Your task to perform on an android device: delete the emails in spam in the gmail app Image 0: 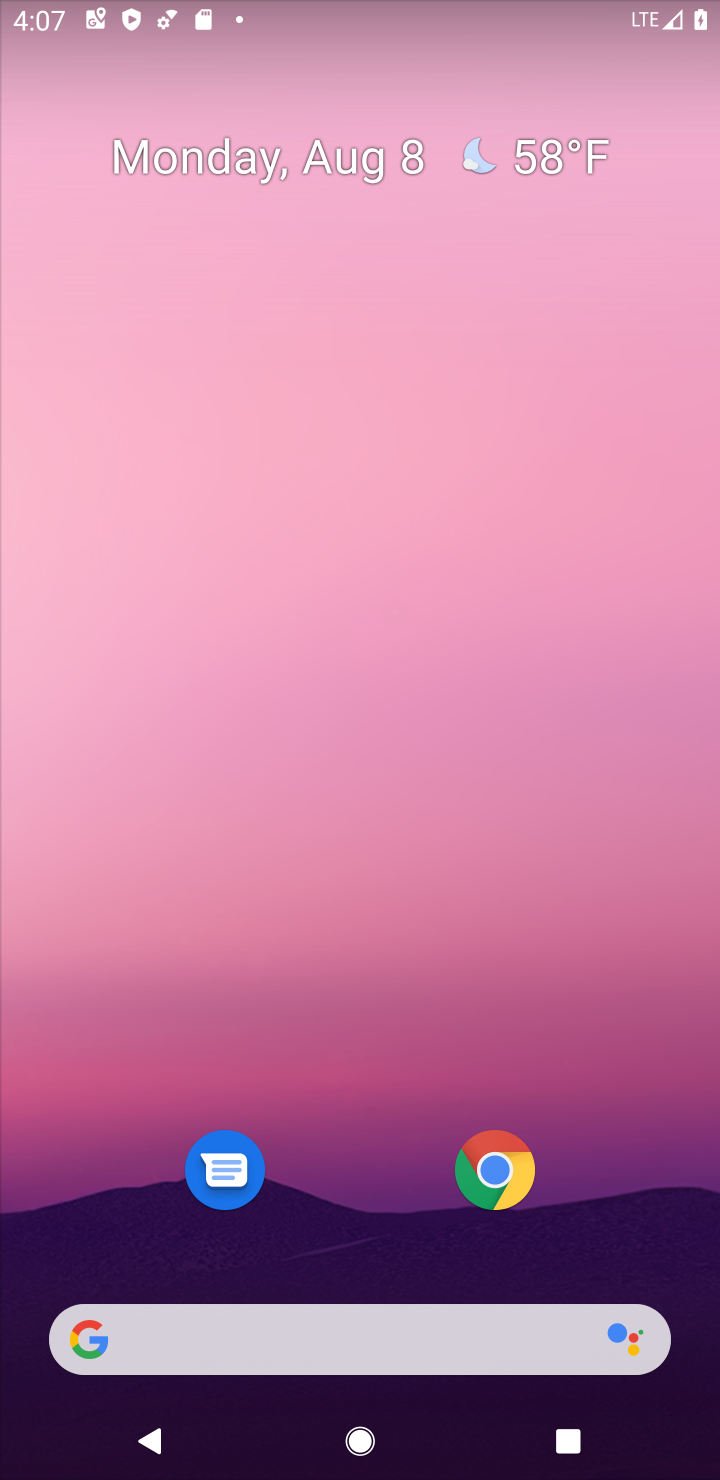
Step 0: drag from (256, 522) to (236, 222)
Your task to perform on an android device: delete the emails in spam in the gmail app Image 1: 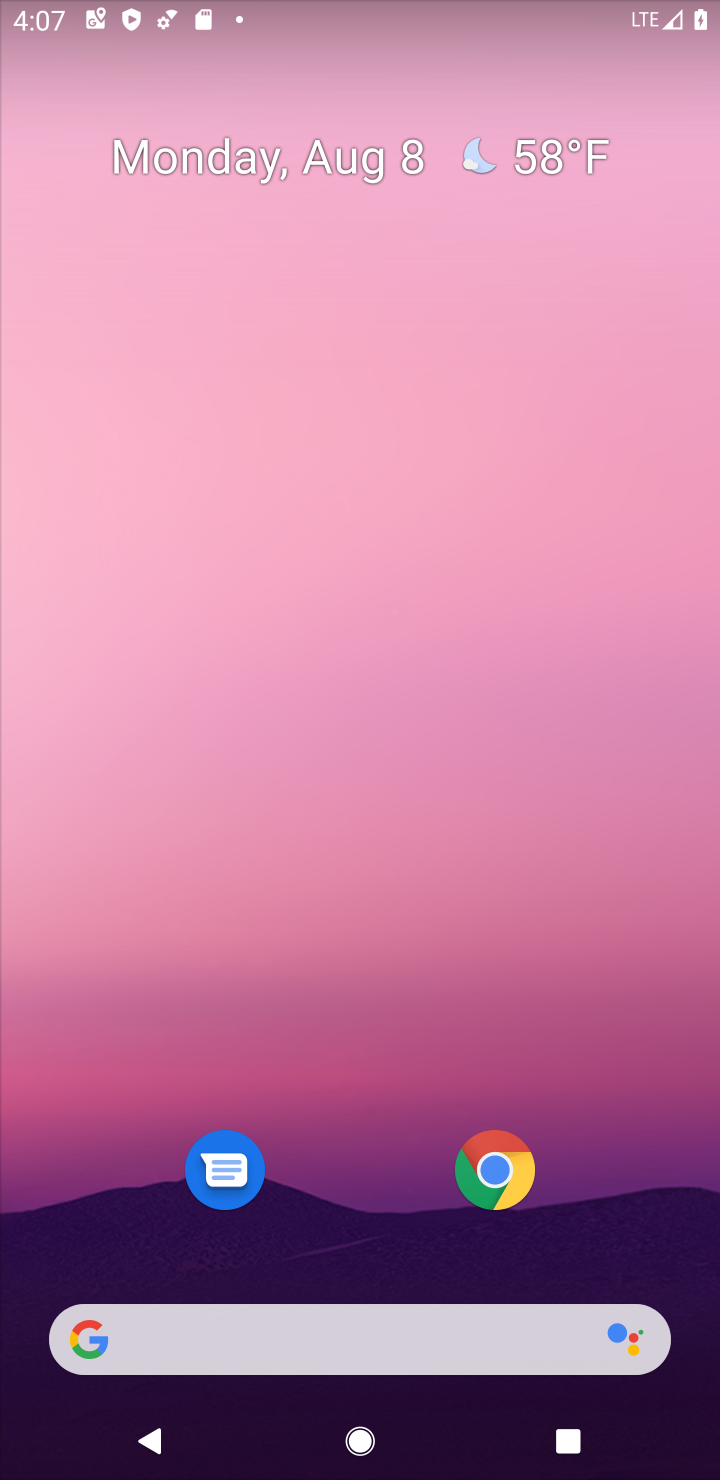
Step 1: drag from (362, 988) to (362, 195)
Your task to perform on an android device: delete the emails in spam in the gmail app Image 2: 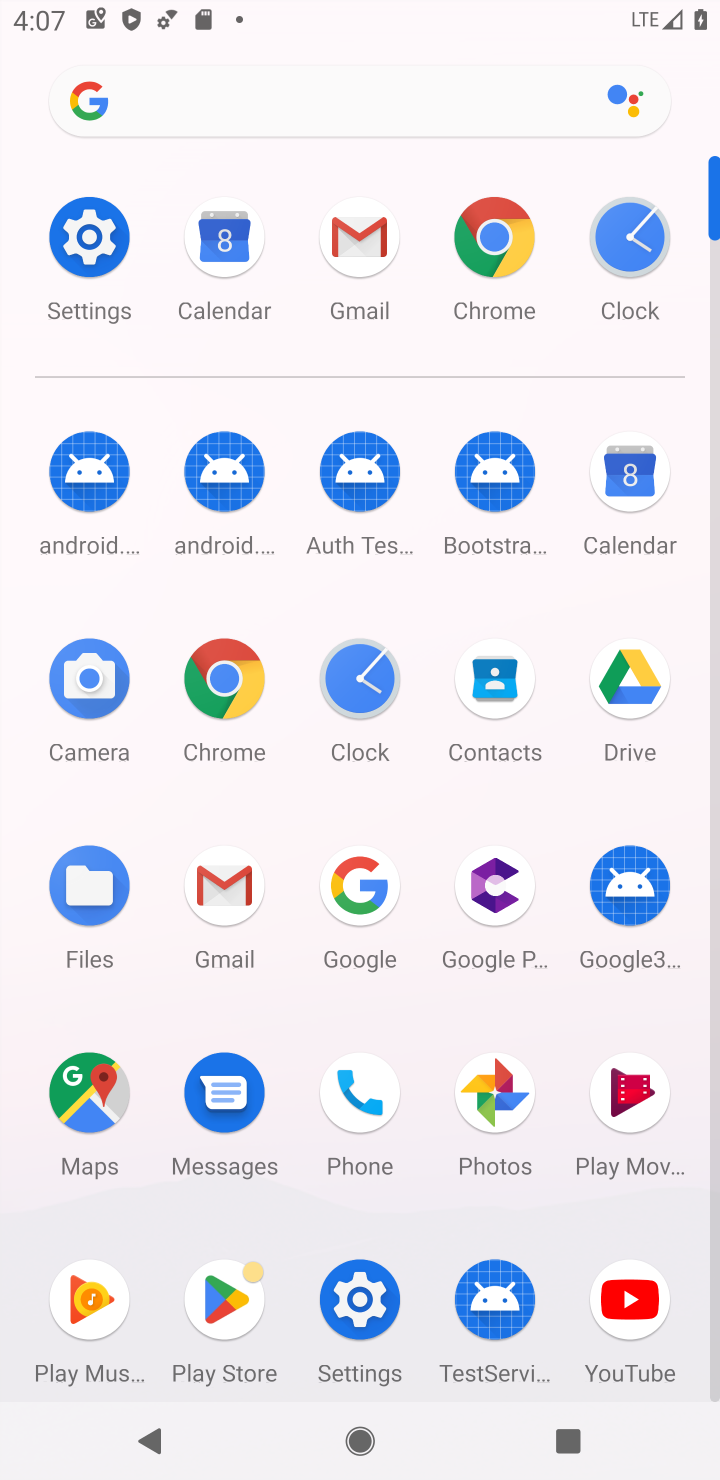
Step 2: click (360, 274)
Your task to perform on an android device: delete the emails in spam in the gmail app Image 3: 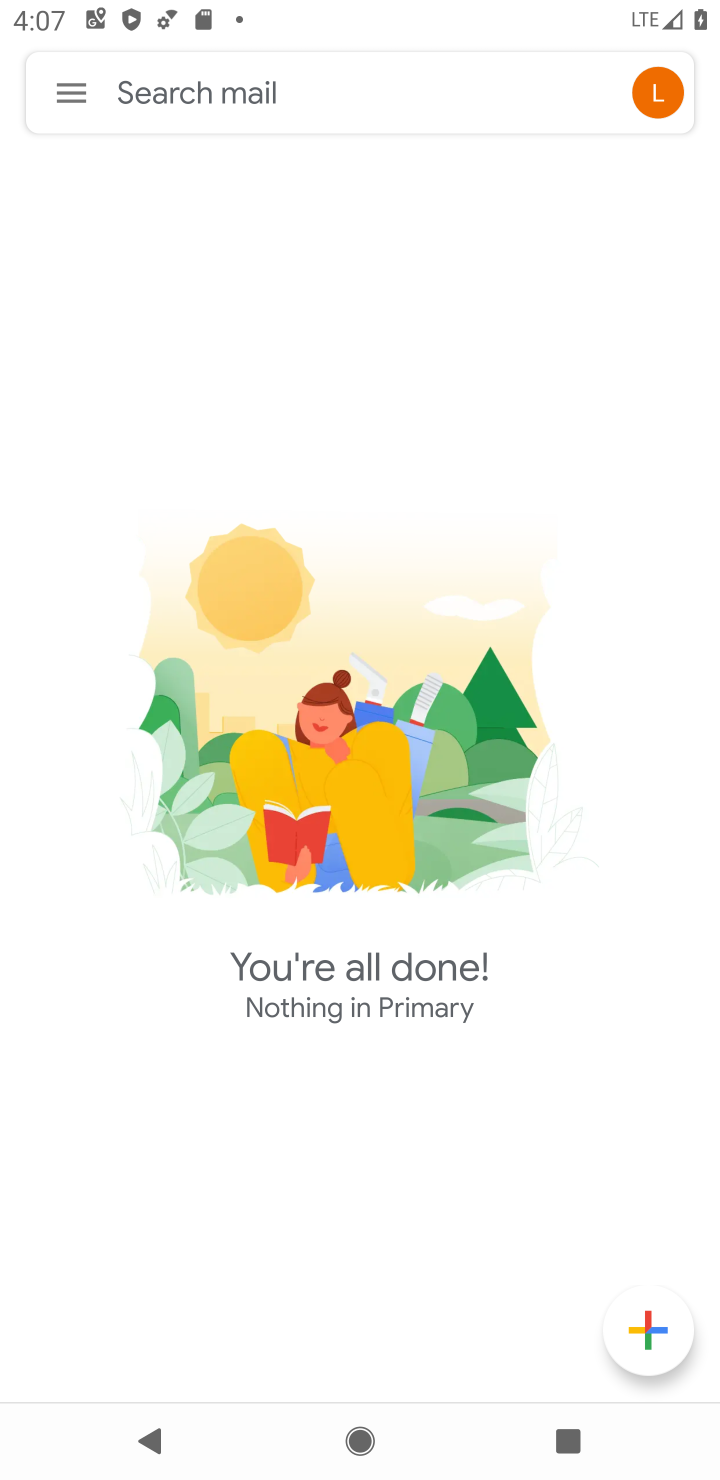
Step 3: click (55, 76)
Your task to perform on an android device: delete the emails in spam in the gmail app Image 4: 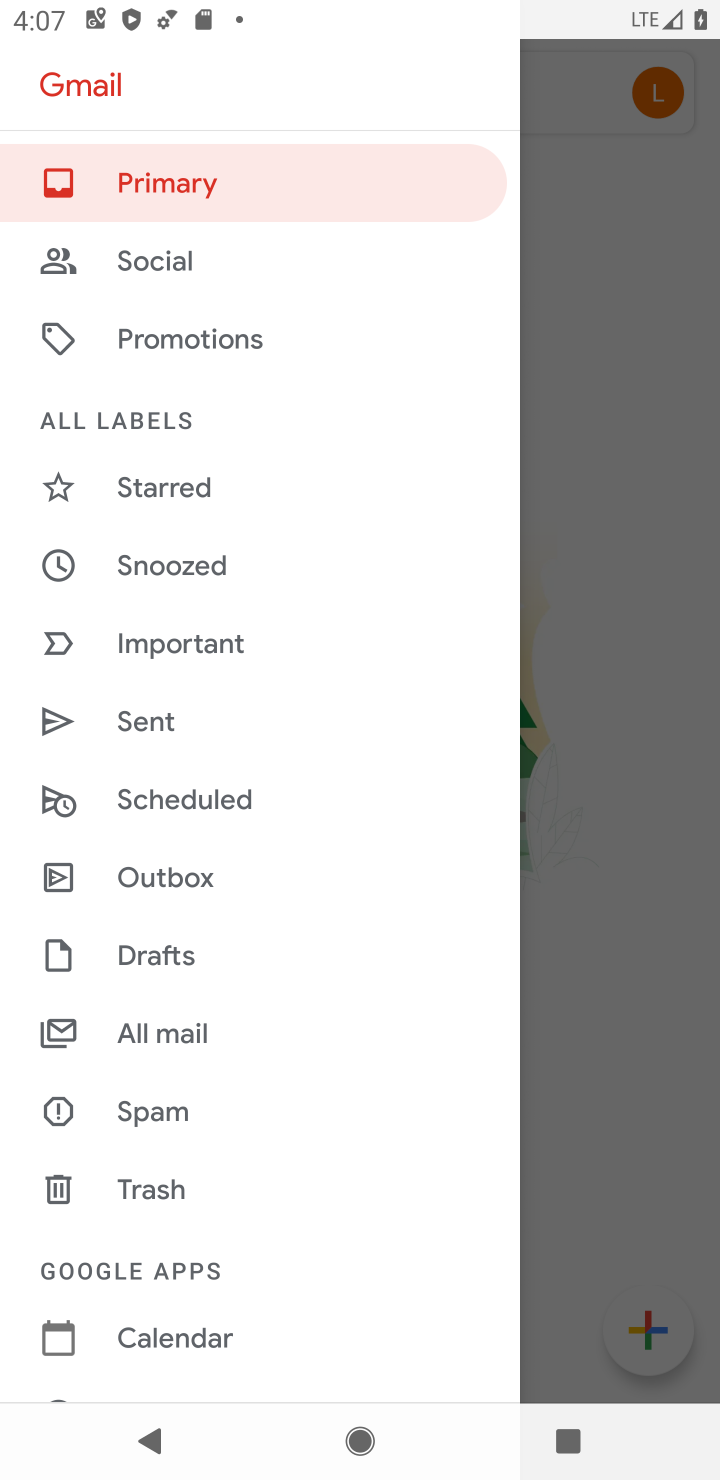
Step 4: click (248, 1124)
Your task to perform on an android device: delete the emails in spam in the gmail app Image 5: 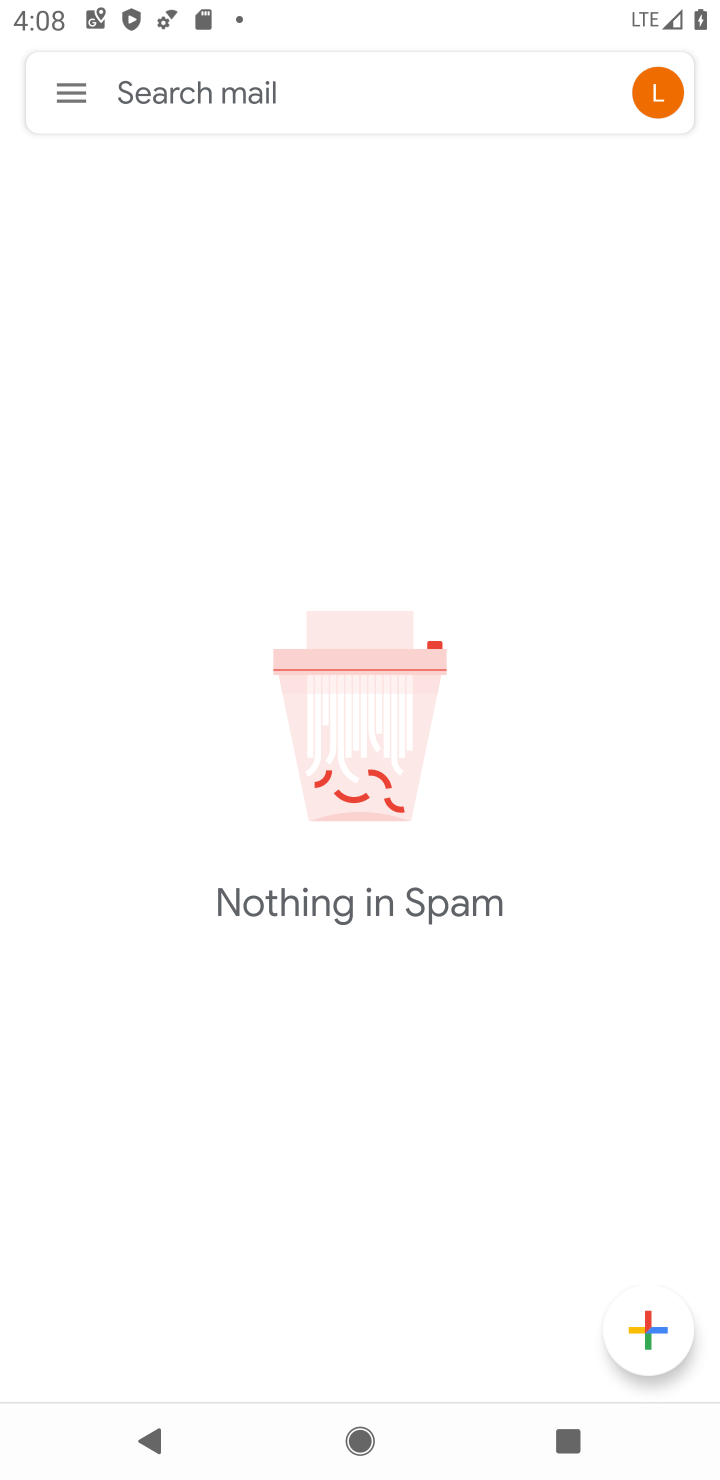
Step 5: click (68, 92)
Your task to perform on an android device: delete the emails in spam in the gmail app Image 6: 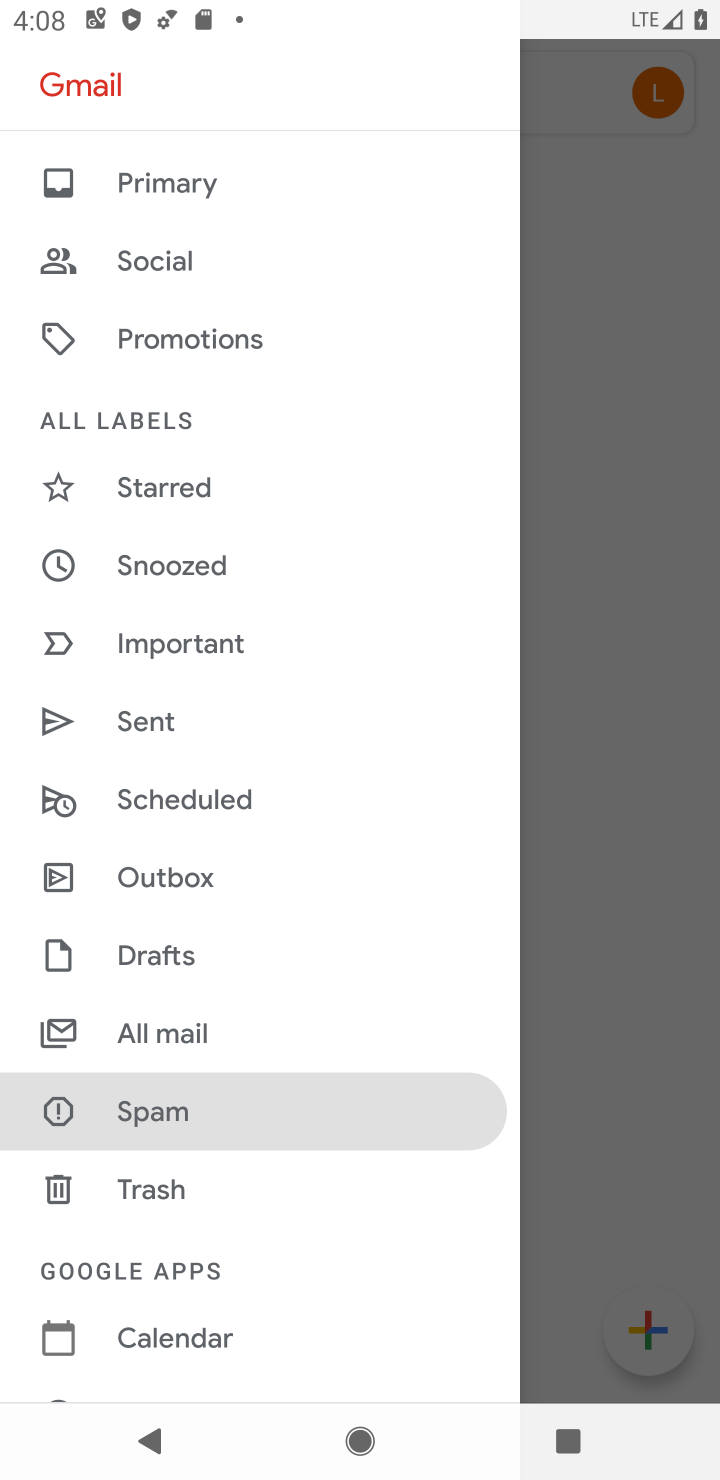
Step 6: task complete